Your task to perform on an android device: What's the weather today? Image 0: 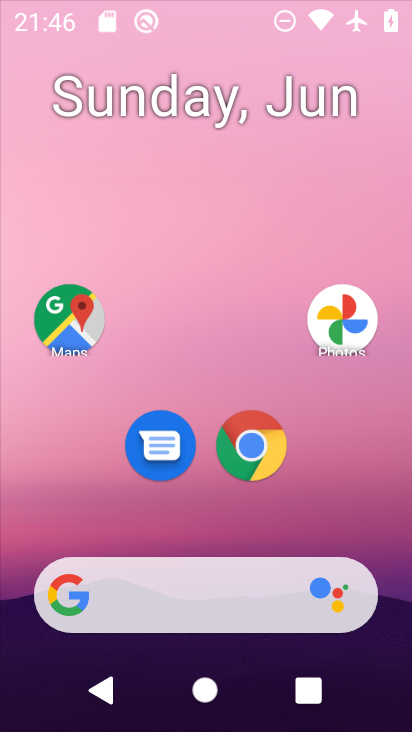
Step 0: press home button
Your task to perform on an android device: What's the weather today? Image 1: 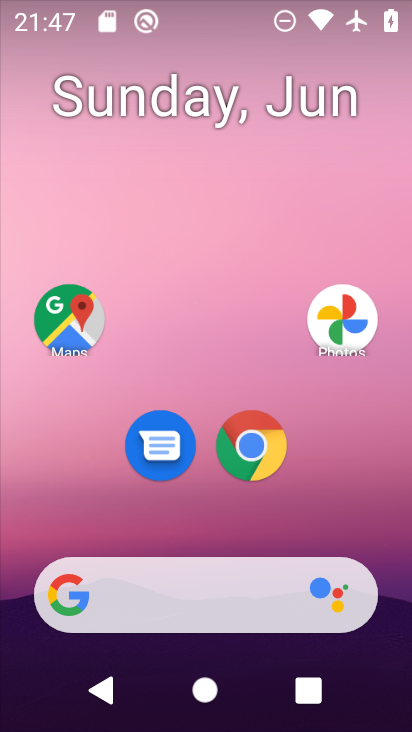
Step 1: click (59, 593)
Your task to perform on an android device: What's the weather today? Image 2: 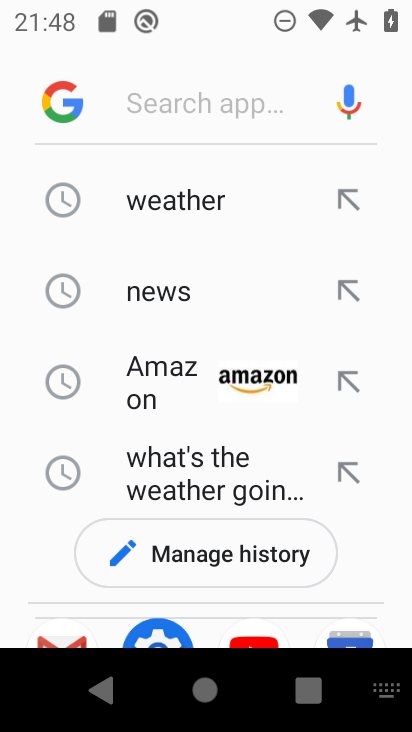
Step 2: type "weather today?"
Your task to perform on an android device: What's the weather today? Image 3: 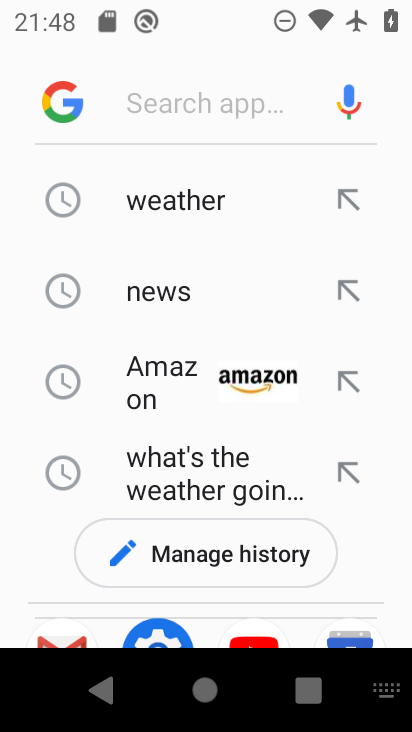
Step 3: click (211, 109)
Your task to perform on an android device: What's the weather today? Image 4: 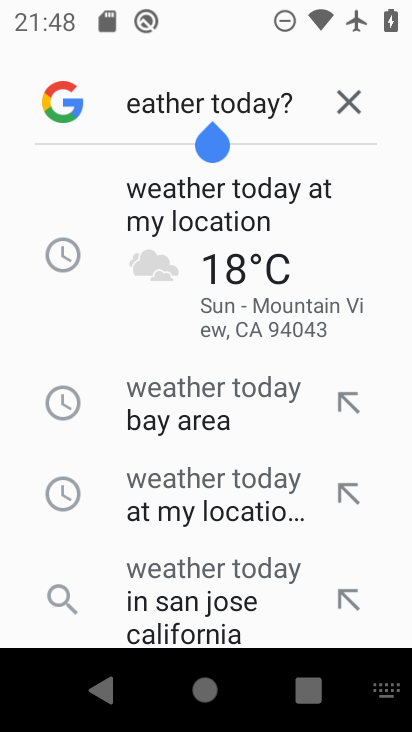
Step 4: click (250, 205)
Your task to perform on an android device: What's the weather today? Image 5: 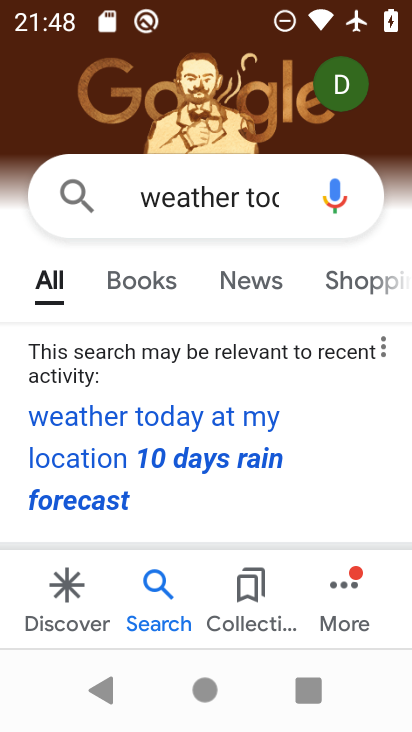
Step 5: task complete